Your task to perform on an android device: change notification settings in the gmail app Image 0: 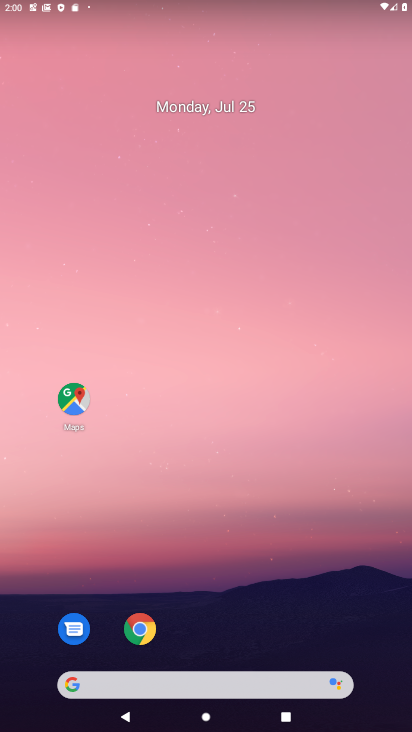
Step 0: drag from (218, 646) to (222, 15)
Your task to perform on an android device: change notification settings in the gmail app Image 1: 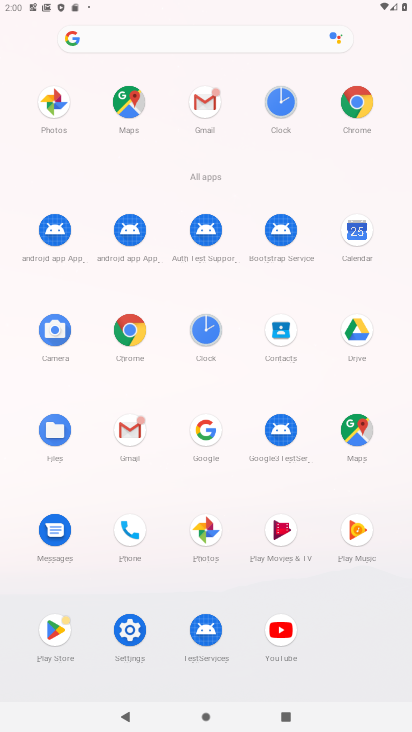
Step 1: click (138, 438)
Your task to perform on an android device: change notification settings in the gmail app Image 2: 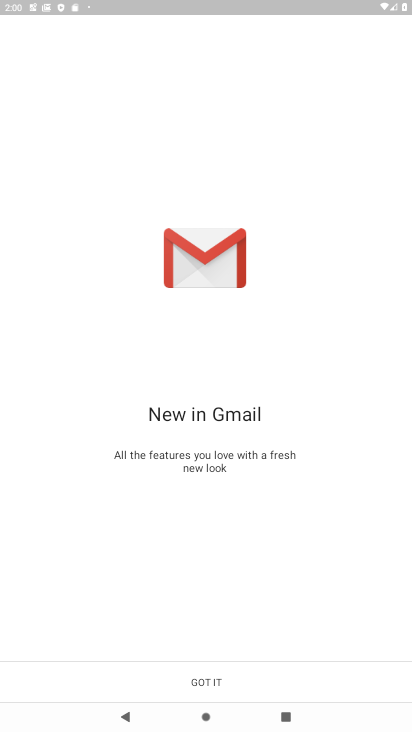
Step 2: click (231, 679)
Your task to perform on an android device: change notification settings in the gmail app Image 3: 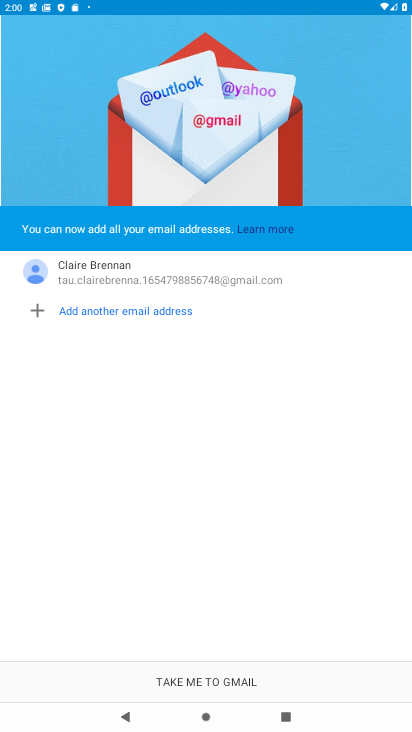
Step 3: click (248, 684)
Your task to perform on an android device: change notification settings in the gmail app Image 4: 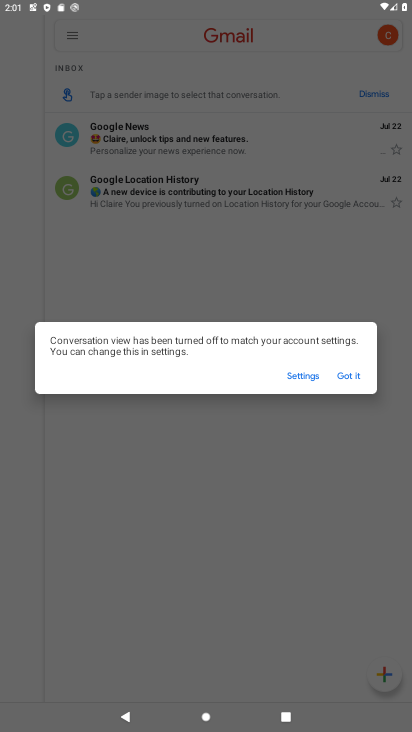
Step 4: click (303, 375)
Your task to perform on an android device: change notification settings in the gmail app Image 5: 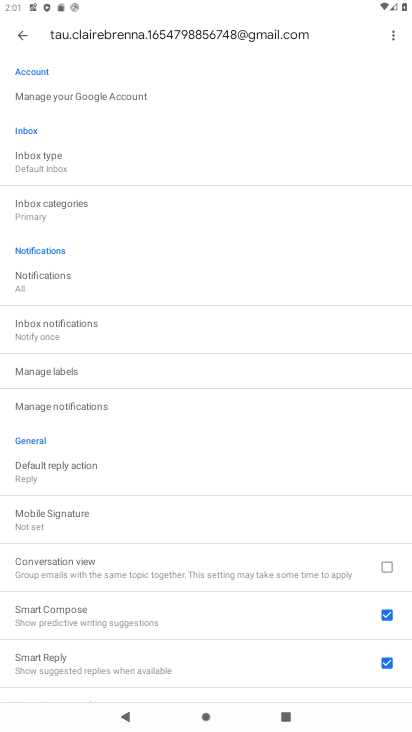
Step 5: click (20, 36)
Your task to perform on an android device: change notification settings in the gmail app Image 6: 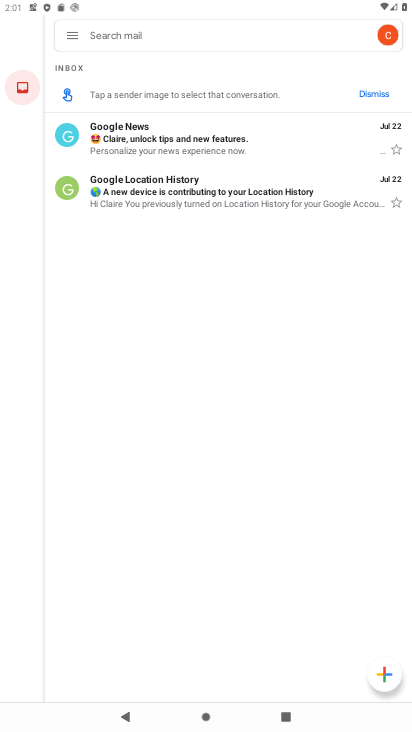
Step 6: click (67, 38)
Your task to perform on an android device: change notification settings in the gmail app Image 7: 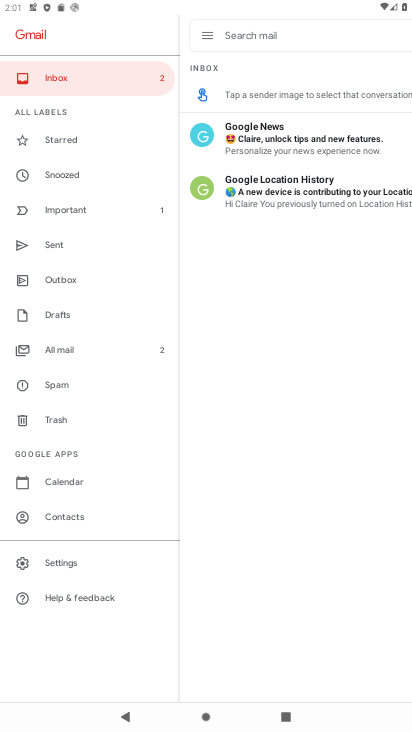
Step 7: click (73, 569)
Your task to perform on an android device: change notification settings in the gmail app Image 8: 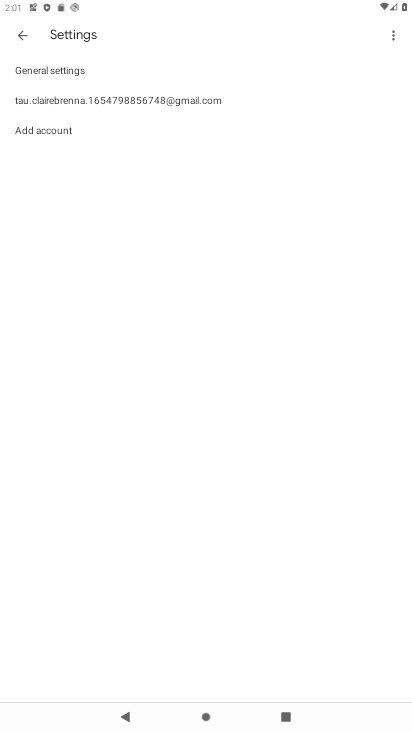
Step 8: click (49, 73)
Your task to perform on an android device: change notification settings in the gmail app Image 9: 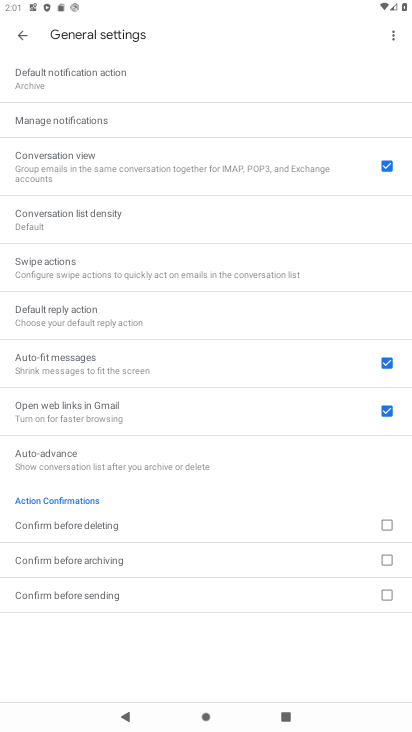
Step 9: click (79, 120)
Your task to perform on an android device: change notification settings in the gmail app Image 10: 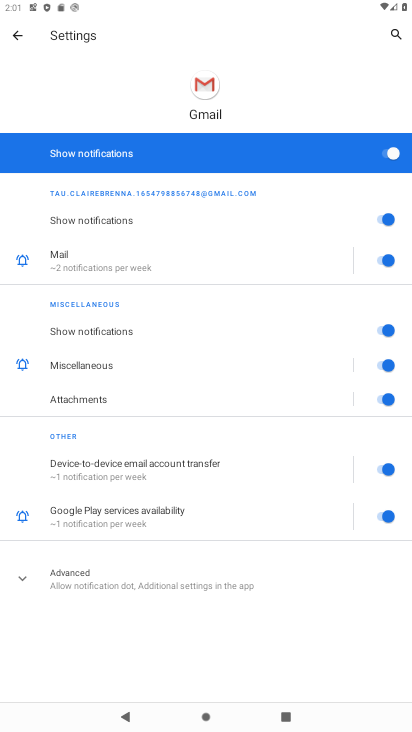
Step 10: click (366, 153)
Your task to perform on an android device: change notification settings in the gmail app Image 11: 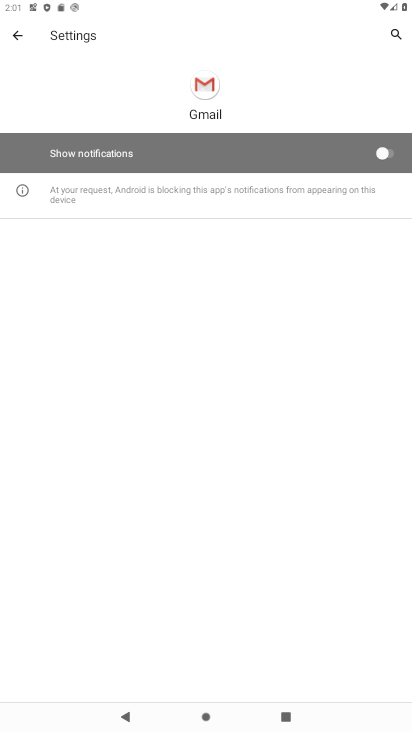
Step 11: task complete